Your task to perform on an android device: Open privacy settings Image 0: 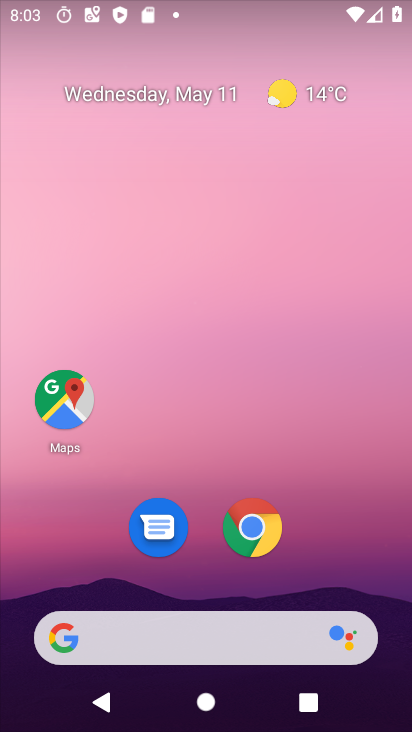
Step 0: drag from (232, 607) to (230, 107)
Your task to perform on an android device: Open privacy settings Image 1: 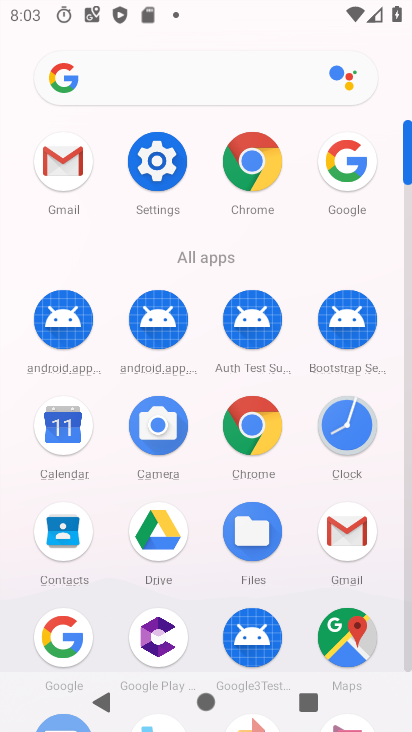
Step 1: click (174, 168)
Your task to perform on an android device: Open privacy settings Image 2: 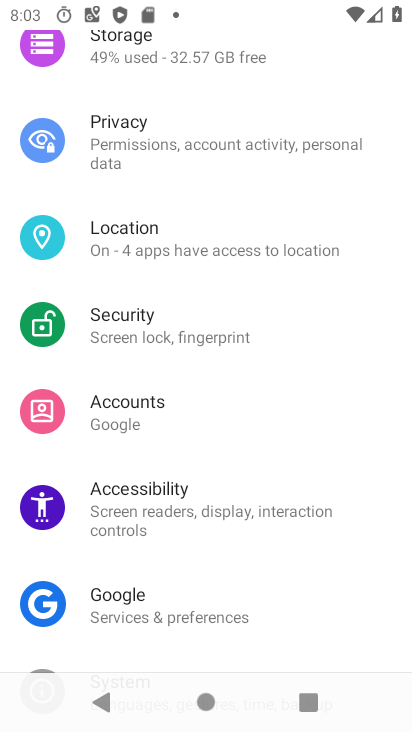
Step 2: drag from (212, 525) to (220, 301)
Your task to perform on an android device: Open privacy settings Image 3: 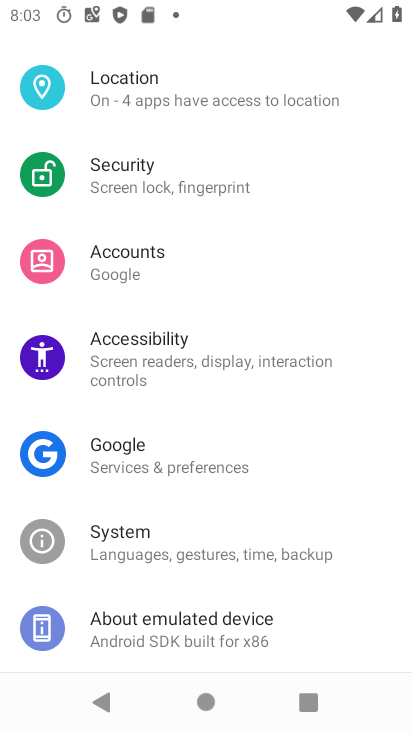
Step 3: drag from (160, 467) to (163, 209)
Your task to perform on an android device: Open privacy settings Image 4: 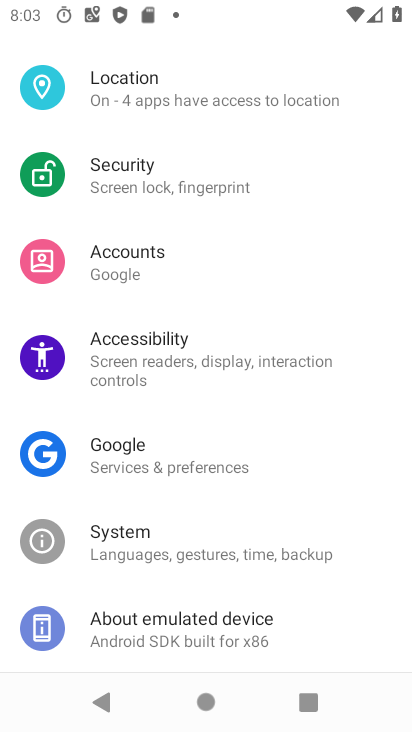
Step 4: drag from (200, 452) to (162, 577)
Your task to perform on an android device: Open privacy settings Image 5: 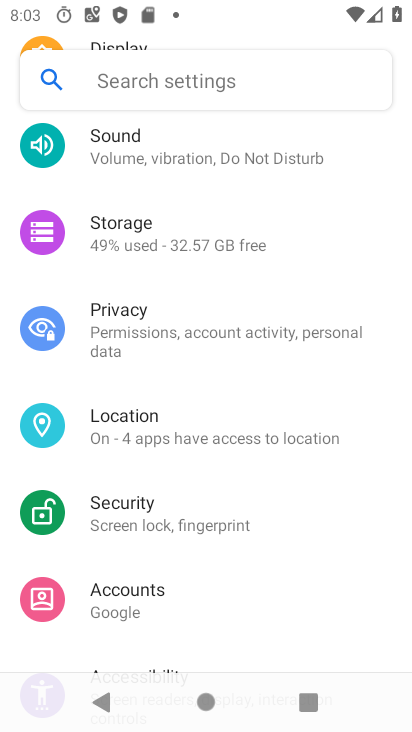
Step 5: click (231, 326)
Your task to perform on an android device: Open privacy settings Image 6: 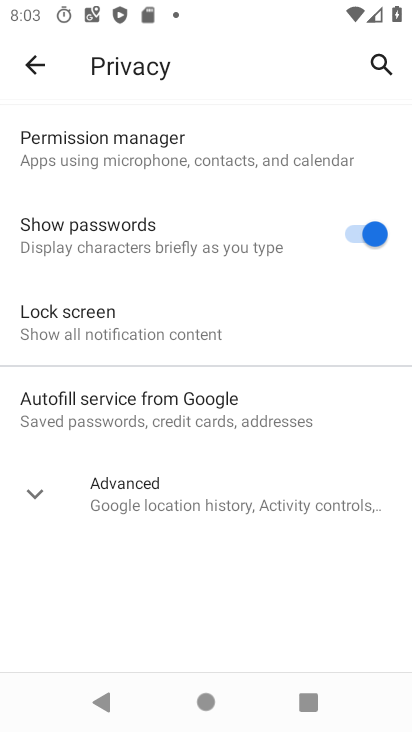
Step 6: task complete